Your task to perform on an android device: turn on translation in the chrome app Image 0: 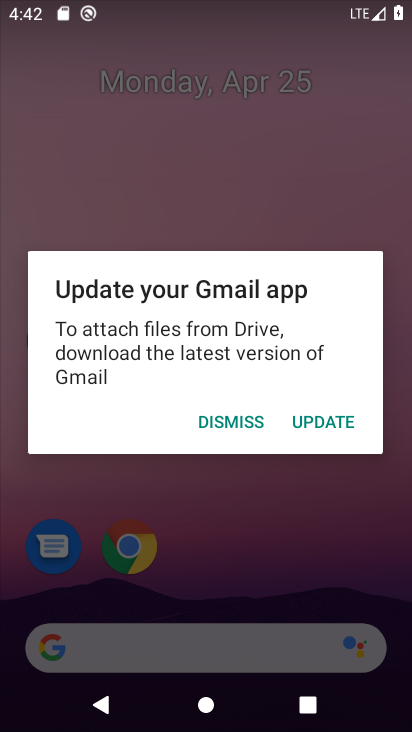
Step 0: press home button
Your task to perform on an android device: turn on translation in the chrome app Image 1: 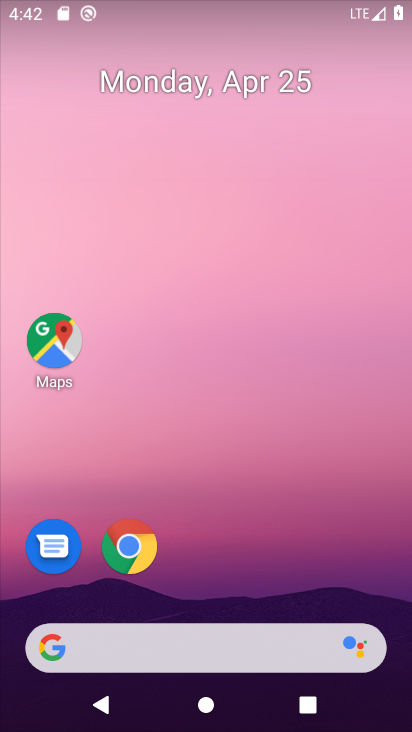
Step 1: click (129, 536)
Your task to perform on an android device: turn on translation in the chrome app Image 2: 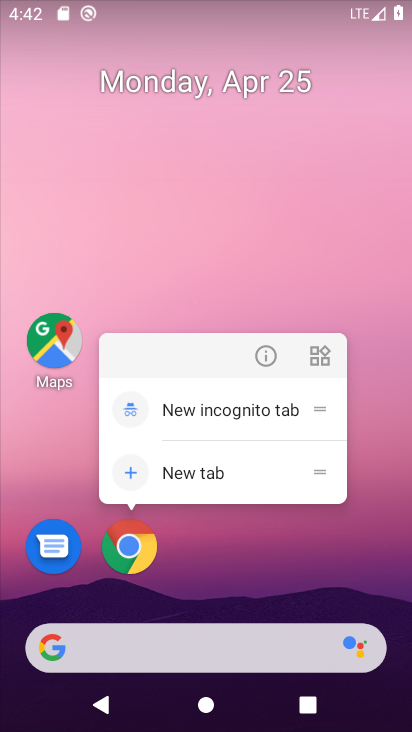
Step 2: click (134, 530)
Your task to perform on an android device: turn on translation in the chrome app Image 3: 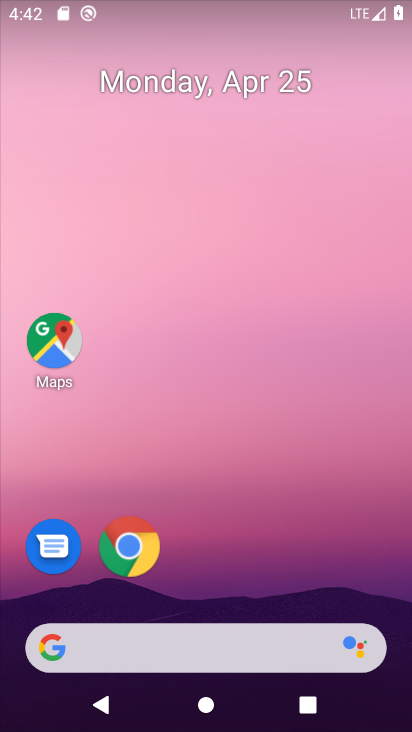
Step 3: click (134, 530)
Your task to perform on an android device: turn on translation in the chrome app Image 4: 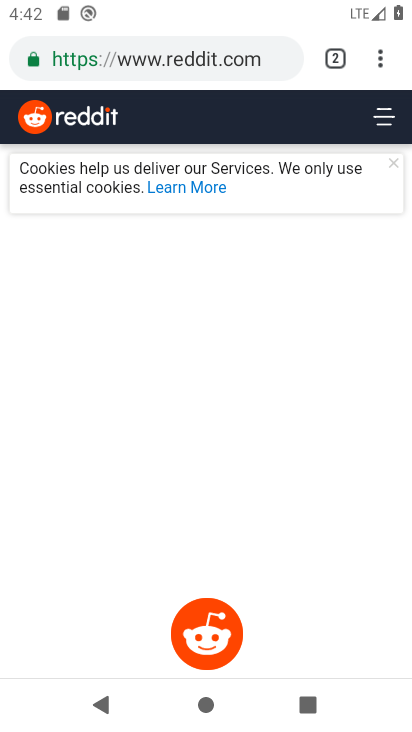
Step 4: click (379, 59)
Your task to perform on an android device: turn on translation in the chrome app Image 5: 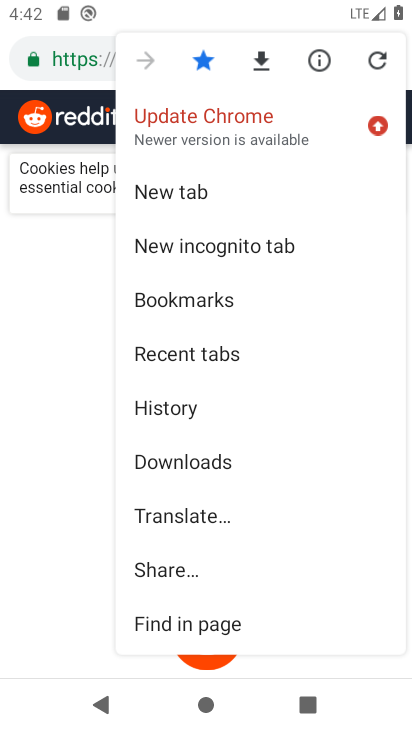
Step 5: drag from (178, 588) to (292, 133)
Your task to perform on an android device: turn on translation in the chrome app Image 6: 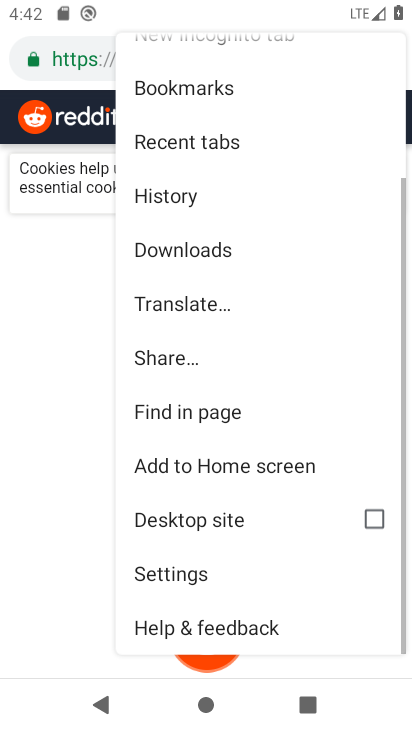
Step 6: click (189, 568)
Your task to perform on an android device: turn on translation in the chrome app Image 7: 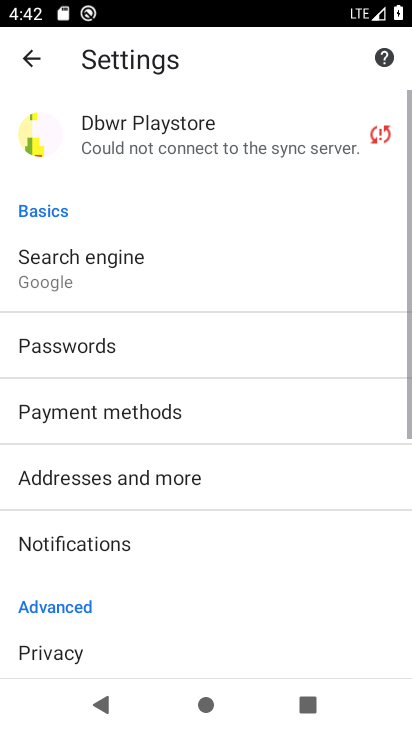
Step 7: drag from (194, 606) to (287, 203)
Your task to perform on an android device: turn on translation in the chrome app Image 8: 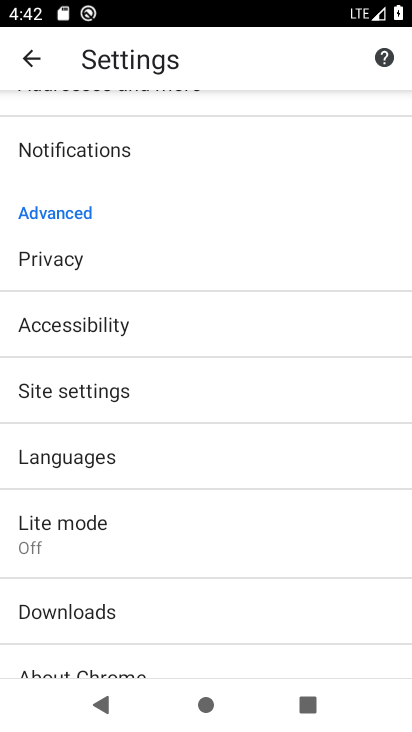
Step 8: click (119, 443)
Your task to perform on an android device: turn on translation in the chrome app Image 9: 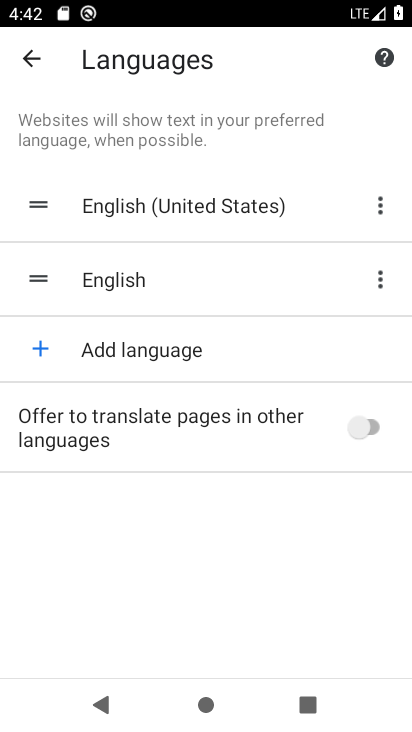
Step 9: click (371, 432)
Your task to perform on an android device: turn on translation in the chrome app Image 10: 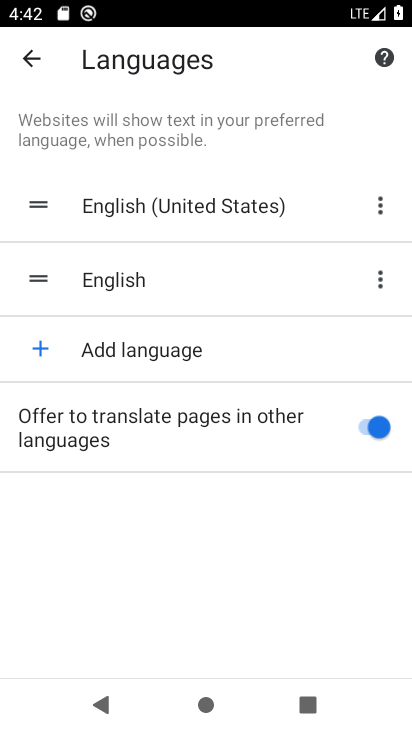
Step 10: task complete